Your task to perform on an android device: check out phone information Image 0: 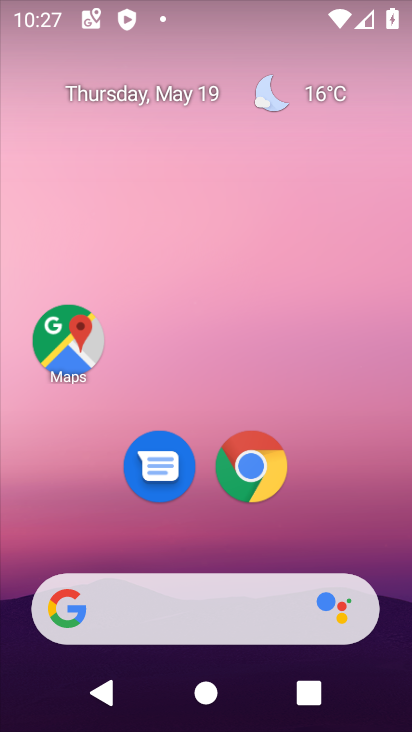
Step 0: drag from (308, 523) to (285, 77)
Your task to perform on an android device: check out phone information Image 1: 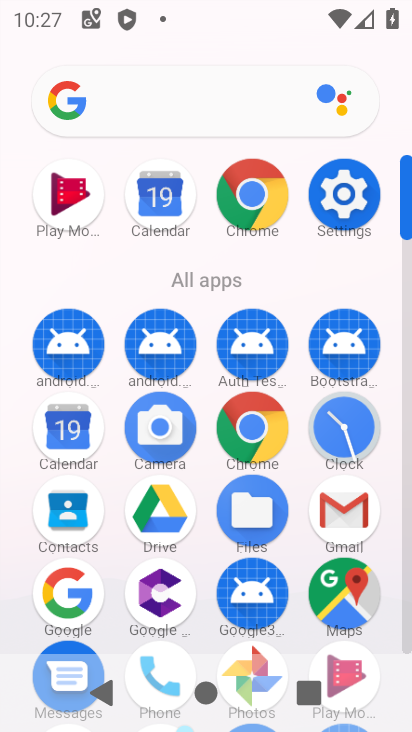
Step 1: click (335, 182)
Your task to perform on an android device: check out phone information Image 2: 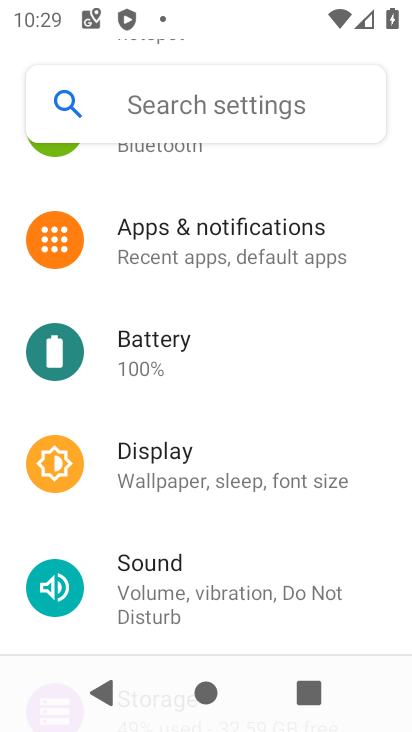
Step 2: drag from (208, 557) to (225, 166)
Your task to perform on an android device: check out phone information Image 3: 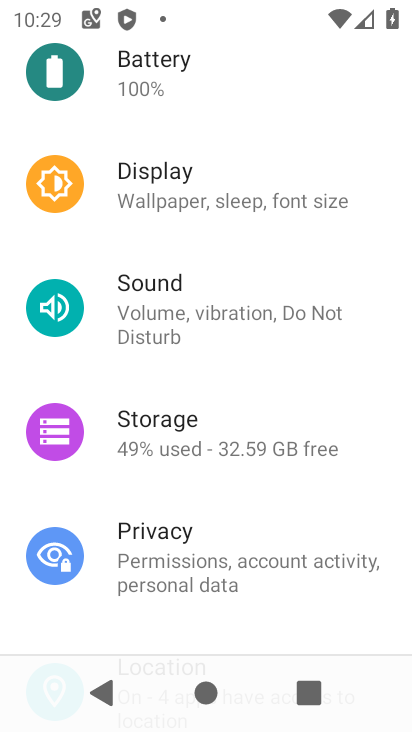
Step 3: drag from (189, 509) to (213, 95)
Your task to perform on an android device: check out phone information Image 4: 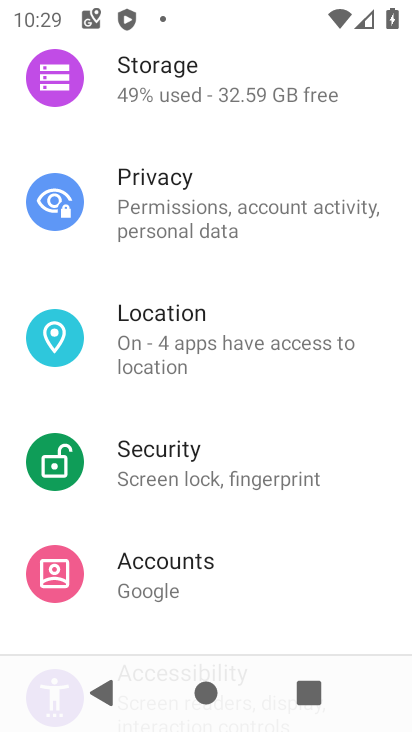
Step 4: drag from (205, 490) to (245, 96)
Your task to perform on an android device: check out phone information Image 5: 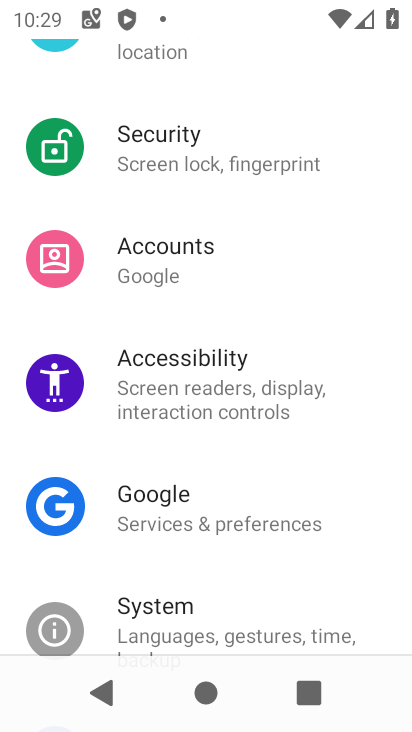
Step 5: drag from (198, 580) to (261, 181)
Your task to perform on an android device: check out phone information Image 6: 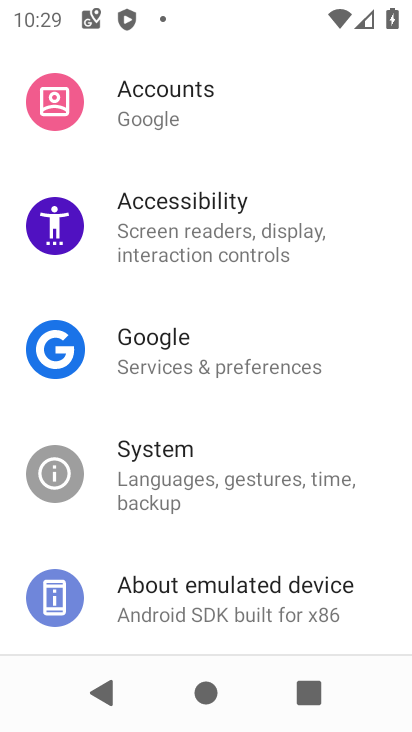
Step 6: click (197, 586)
Your task to perform on an android device: check out phone information Image 7: 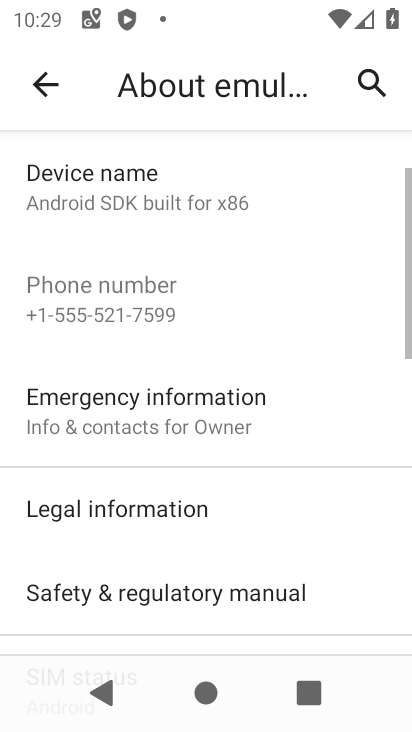
Step 7: task complete